Your task to perform on an android device: find photos in the google photos app Image 0: 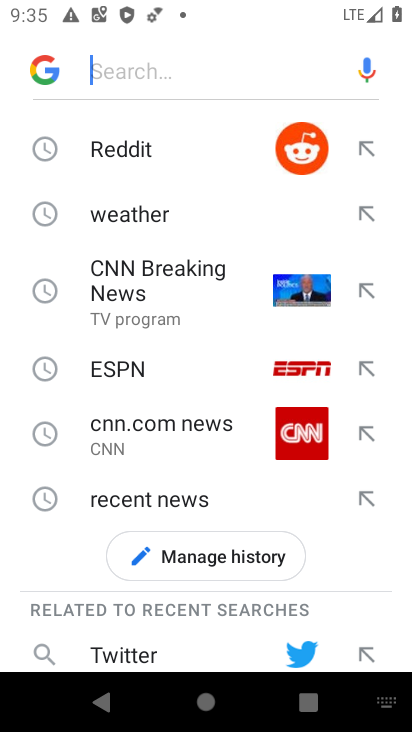
Step 0: press home button
Your task to perform on an android device: find photos in the google photos app Image 1: 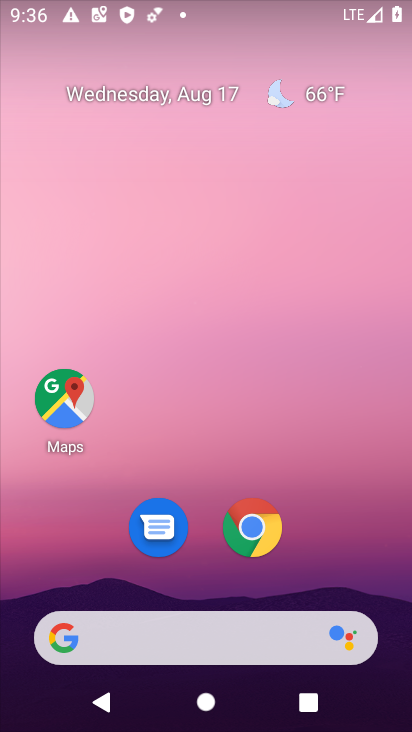
Step 1: drag from (198, 588) to (175, 4)
Your task to perform on an android device: find photos in the google photos app Image 2: 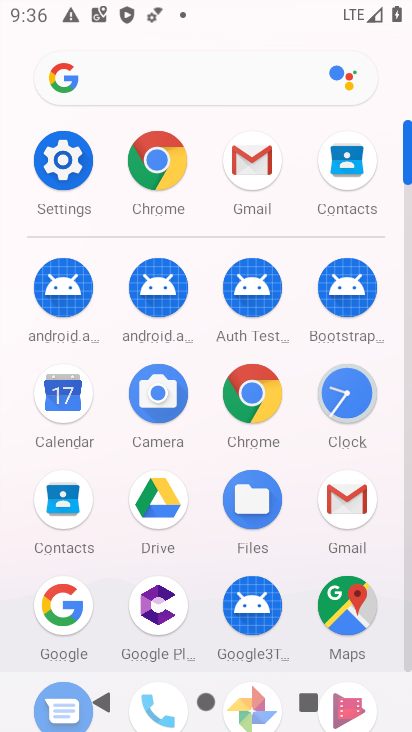
Step 2: drag from (204, 571) to (174, 160)
Your task to perform on an android device: find photos in the google photos app Image 3: 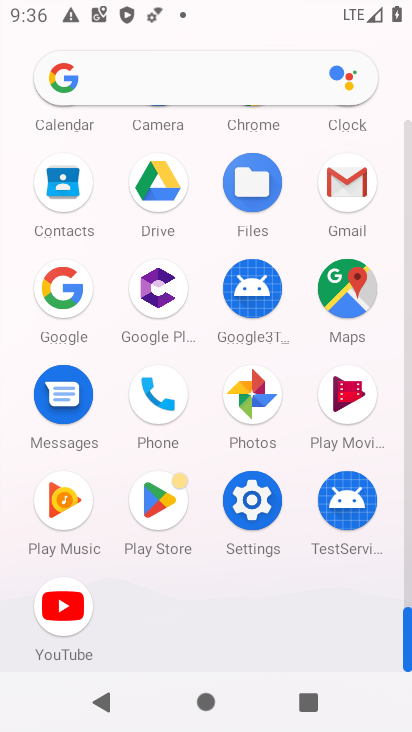
Step 3: click (244, 396)
Your task to perform on an android device: find photos in the google photos app Image 4: 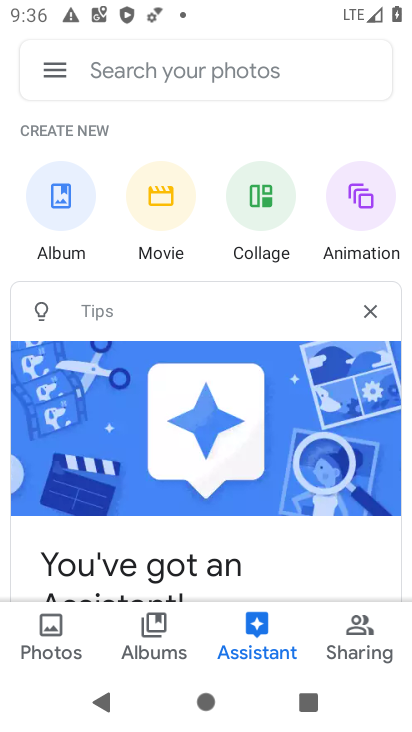
Step 4: click (44, 642)
Your task to perform on an android device: find photos in the google photos app Image 5: 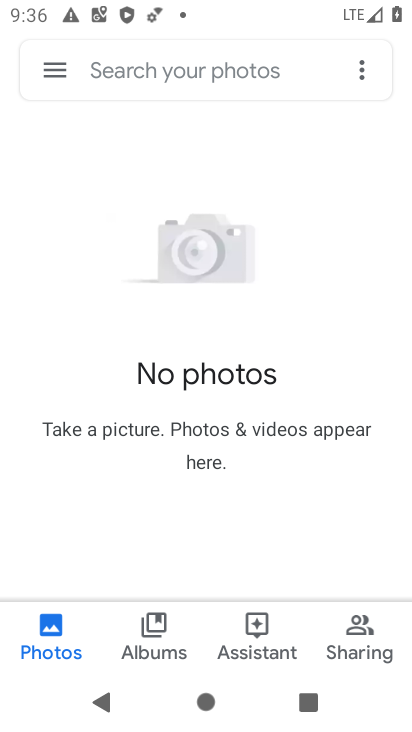
Step 5: task complete